Your task to perform on an android device: toggle improve location accuracy Image 0: 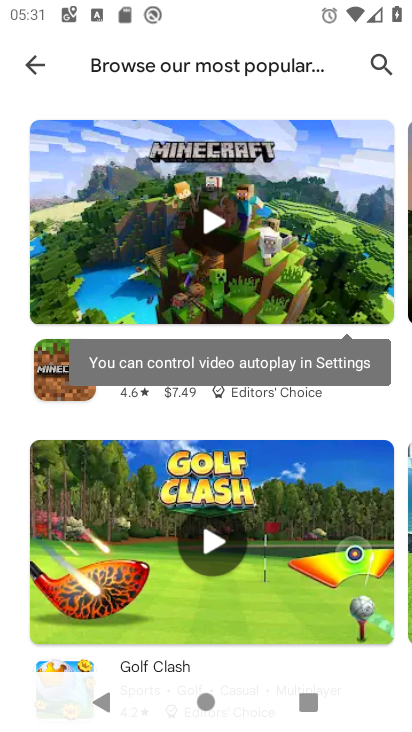
Step 0: press home button
Your task to perform on an android device: toggle improve location accuracy Image 1: 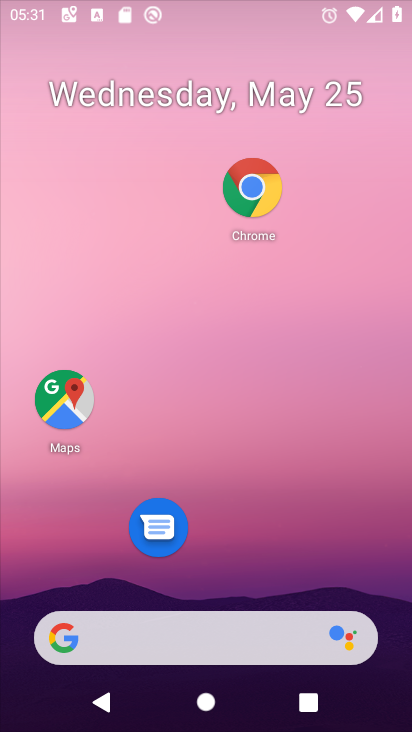
Step 1: drag from (348, 661) to (321, 28)
Your task to perform on an android device: toggle improve location accuracy Image 2: 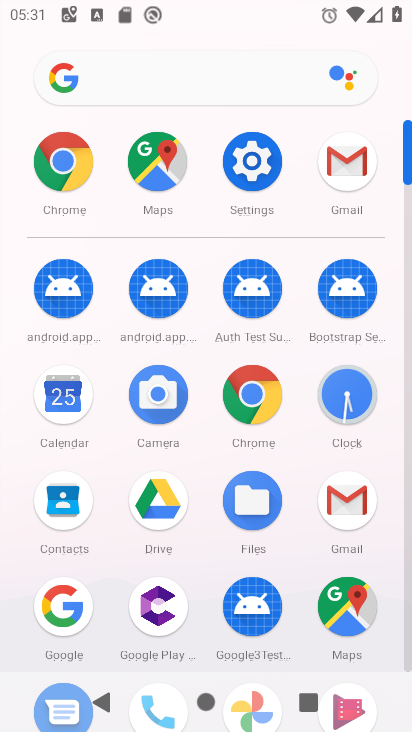
Step 2: click (250, 154)
Your task to perform on an android device: toggle improve location accuracy Image 3: 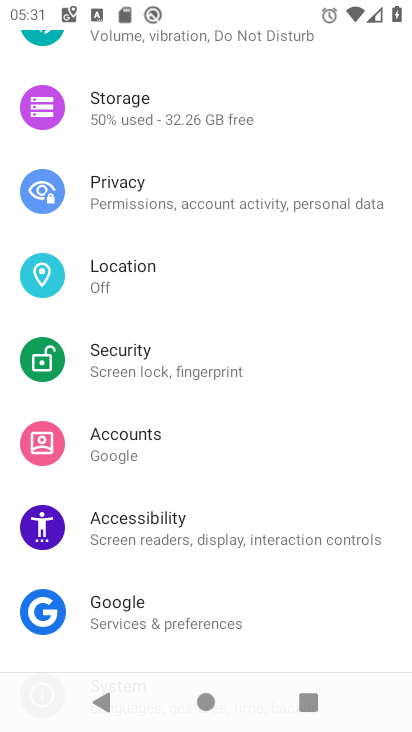
Step 3: click (163, 283)
Your task to perform on an android device: toggle improve location accuracy Image 4: 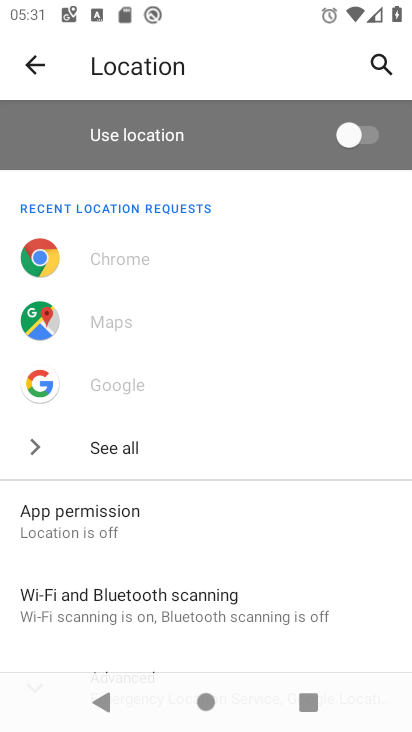
Step 4: drag from (325, 642) to (369, 205)
Your task to perform on an android device: toggle improve location accuracy Image 5: 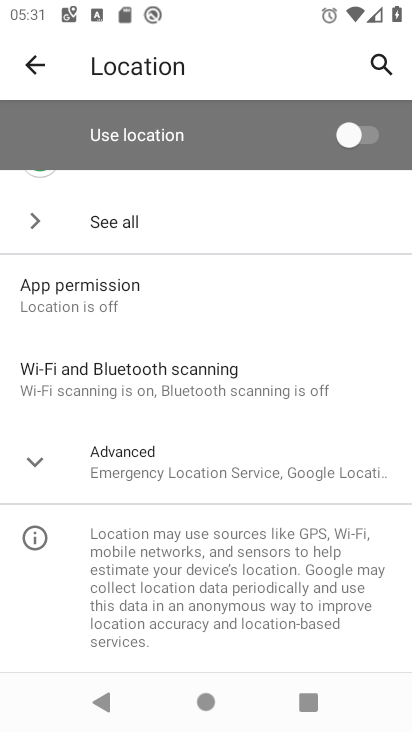
Step 5: click (289, 466)
Your task to perform on an android device: toggle improve location accuracy Image 6: 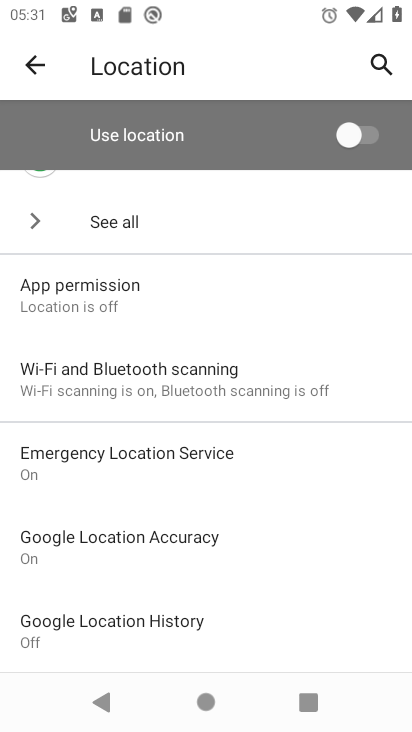
Step 6: click (176, 552)
Your task to perform on an android device: toggle improve location accuracy Image 7: 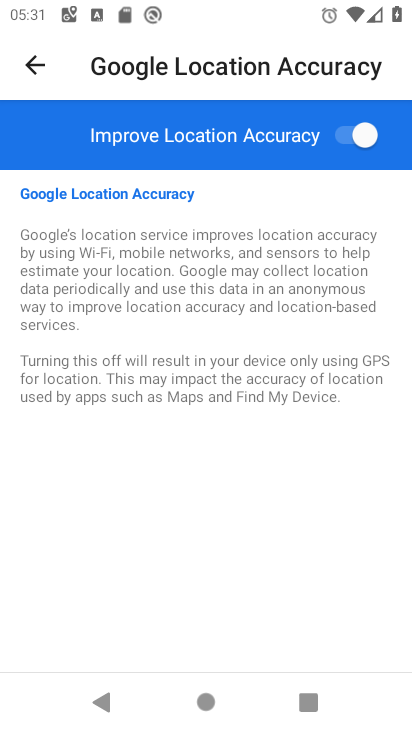
Step 7: click (335, 129)
Your task to perform on an android device: toggle improve location accuracy Image 8: 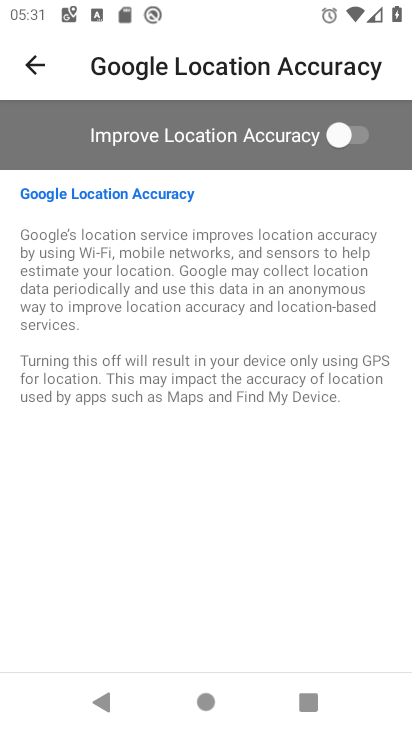
Step 8: task complete